Your task to perform on an android device: toggle show notifications on the lock screen Image 0: 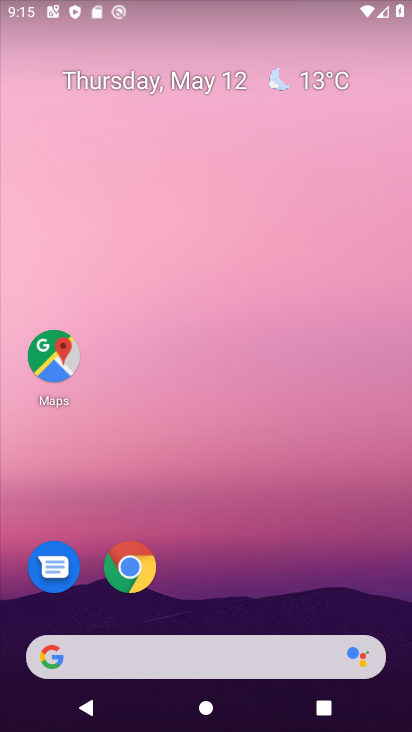
Step 0: drag from (223, 597) to (223, 4)
Your task to perform on an android device: toggle show notifications on the lock screen Image 1: 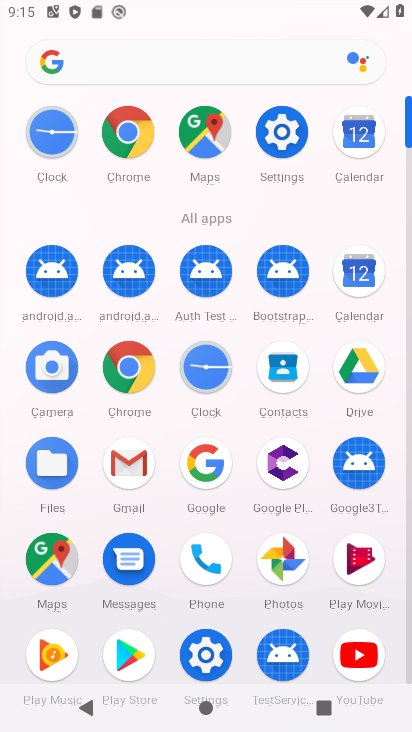
Step 1: click (278, 124)
Your task to perform on an android device: toggle show notifications on the lock screen Image 2: 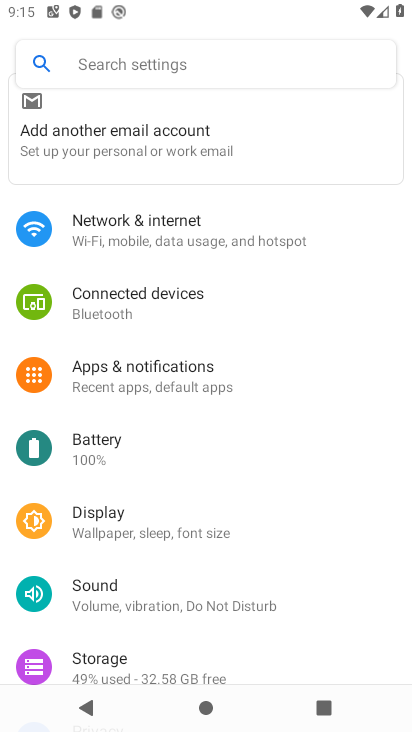
Step 2: click (237, 361)
Your task to perform on an android device: toggle show notifications on the lock screen Image 3: 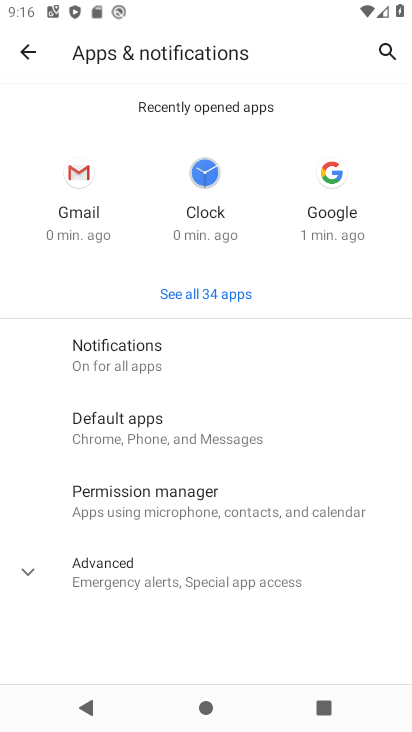
Step 3: click (179, 350)
Your task to perform on an android device: toggle show notifications on the lock screen Image 4: 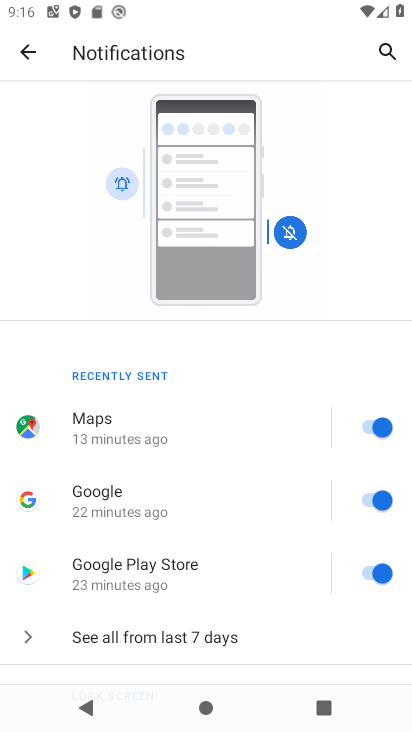
Step 4: drag from (225, 613) to (229, 204)
Your task to perform on an android device: toggle show notifications on the lock screen Image 5: 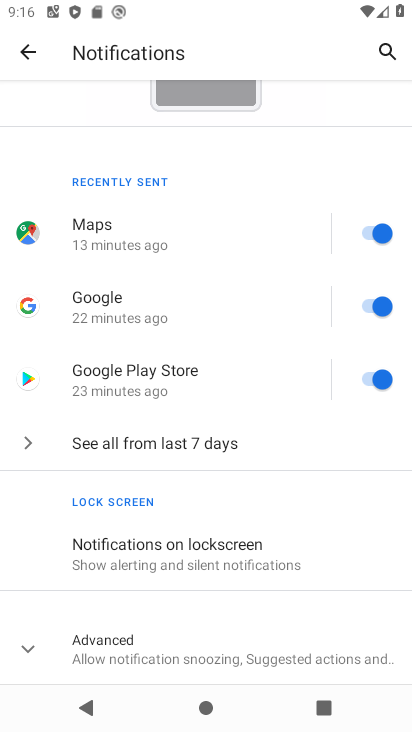
Step 5: click (280, 542)
Your task to perform on an android device: toggle show notifications on the lock screen Image 6: 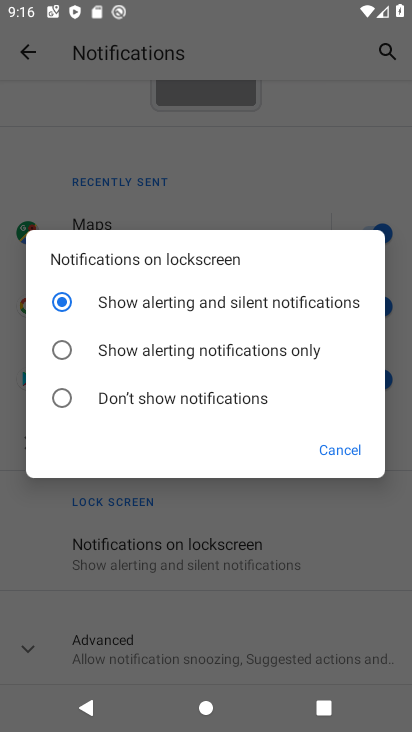
Step 6: click (62, 350)
Your task to perform on an android device: toggle show notifications on the lock screen Image 7: 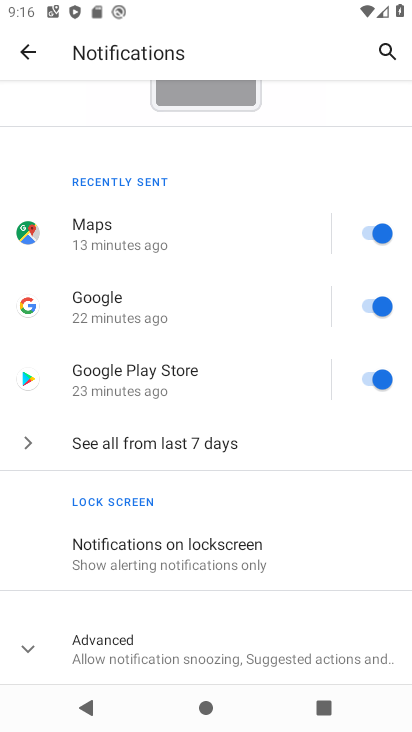
Step 7: click (184, 553)
Your task to perform on an android device: toggle show notifications on the lock screen Image 8: 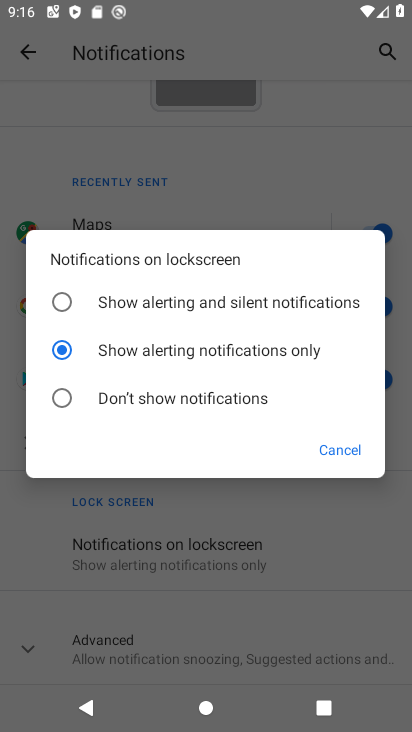
Step 8: task complete